Your task to perform on an android device: What's the weather today? Image 0: 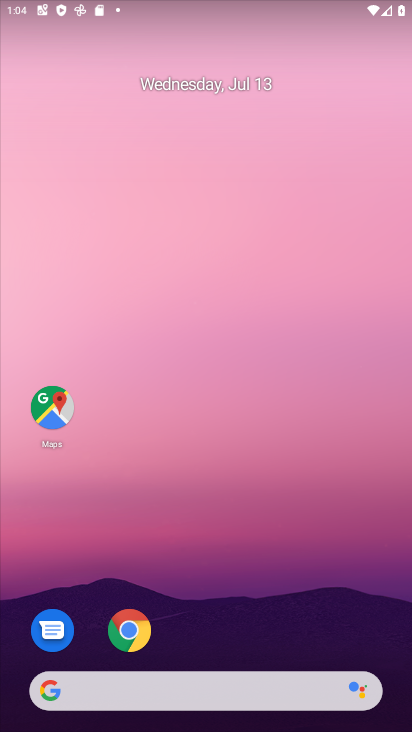
Step 0: drag from (318, 634) to (4, 350)
Your task to perform on an android device: What's the weather today? Image 1: 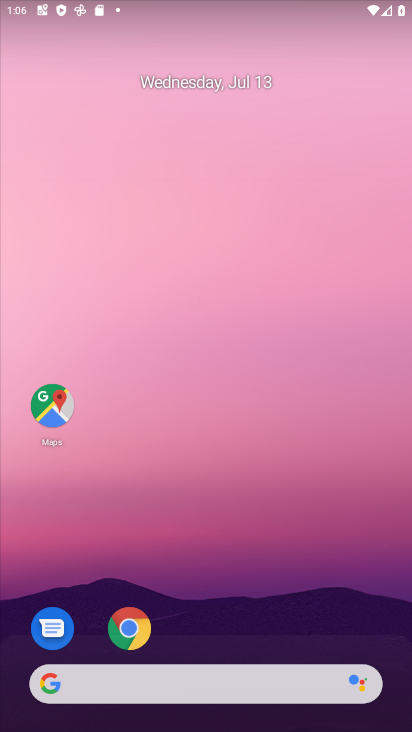
Step 1: click (212, 485)
Your task to perform on an android device: What's the weather today? Image 2: 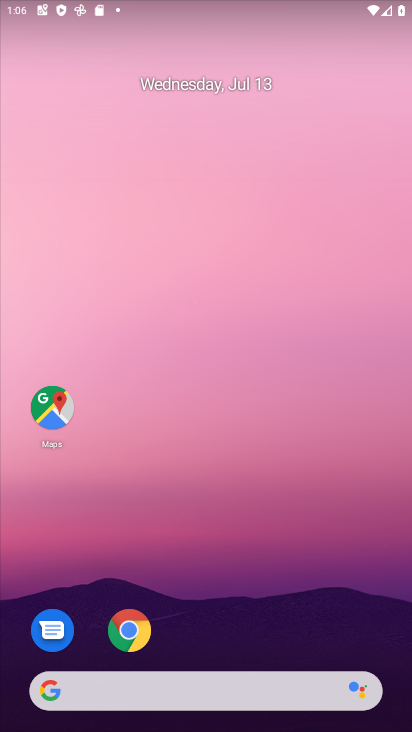
Step 2: drag from (382, 622) to (1, 363)
Your task to perform on an android device: What's the weather today? Image 3: 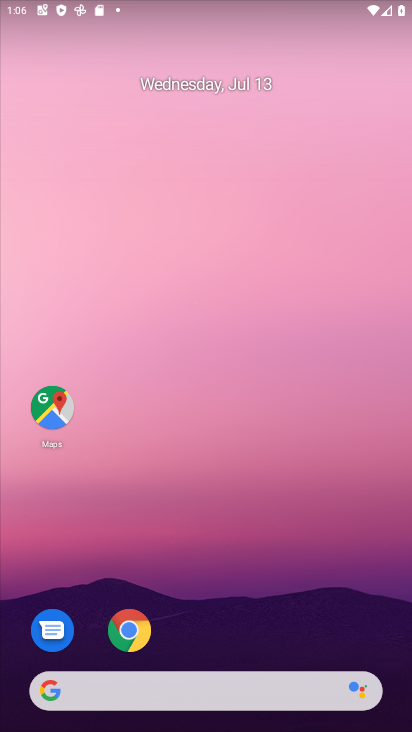
Step 3: drag from (390, 652) to (255, 31)
Your task to perform on an android device: What's the weather today? Image 4: 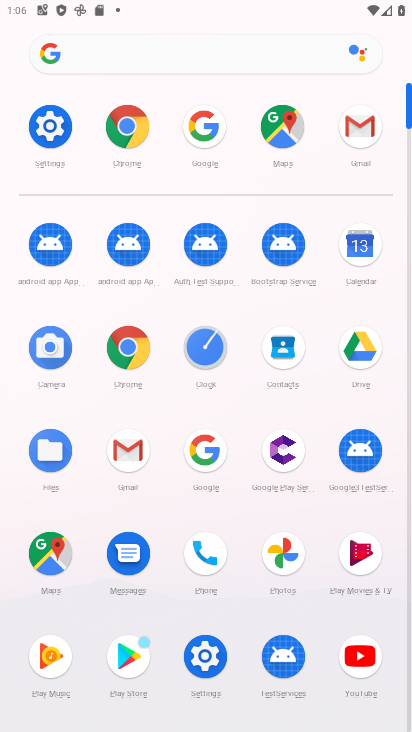
Step 4: click (205, 145)
Your task to perform on an android device: What's the weather today? Image 5: 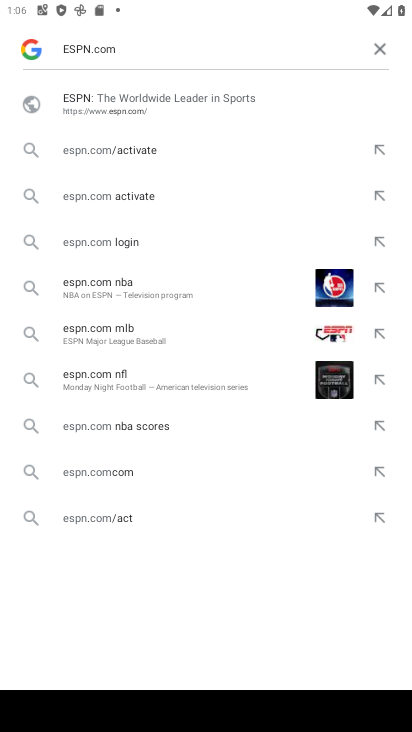
Step 5: click (377, 43)
Your task to perform on an android device: What's the weather today? Image 6: 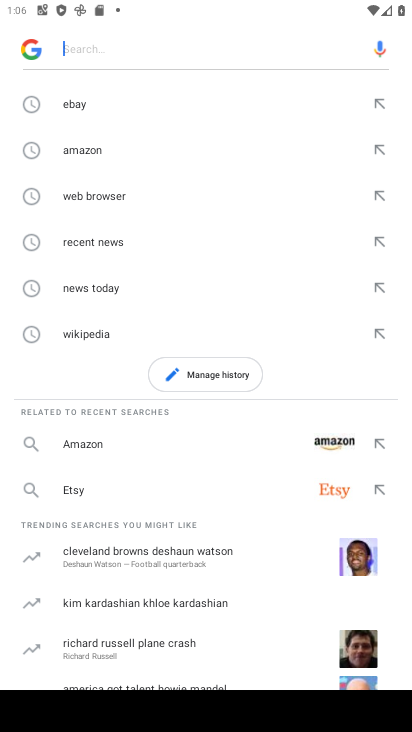
Step 6: type "What's the weather today?"
Your task to perform on an android device: What's the weather today? Image 7: 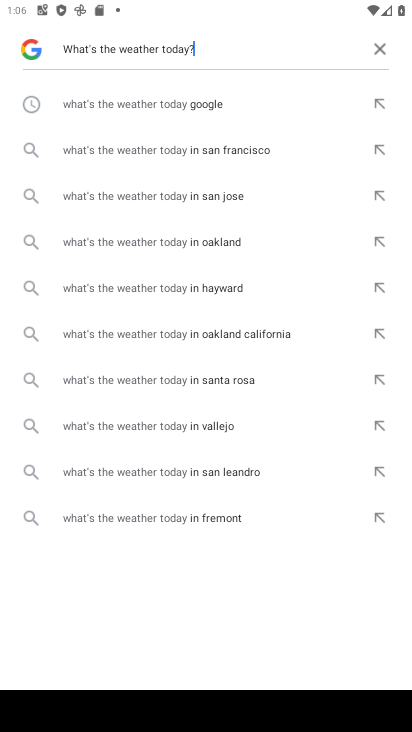
Step 7: click (123, 102)
Your task to perform on an android device: What's the weather today? Image 8: 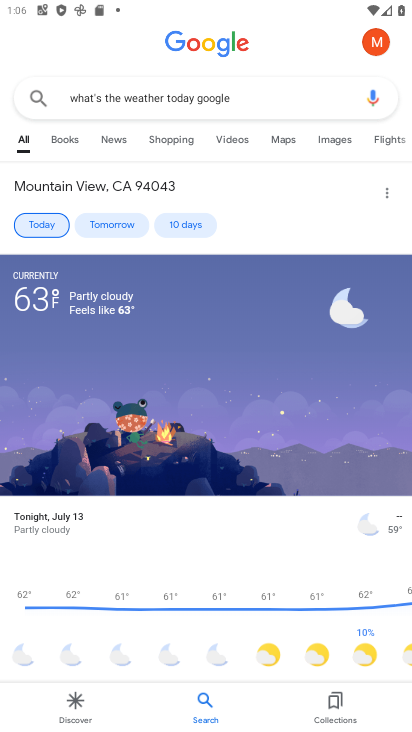
Step 8: task complete